Your task to perform on an android device: Look up the best rated Nike shoes on Nike.com Image 0: 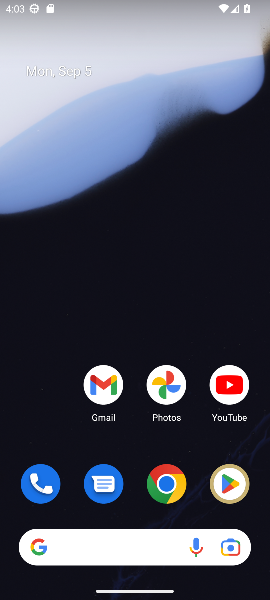
Step 0: click (169, 490)
Your task to perform on an android device: Look up the best rated Nike shoes on Nike.com Image 1: 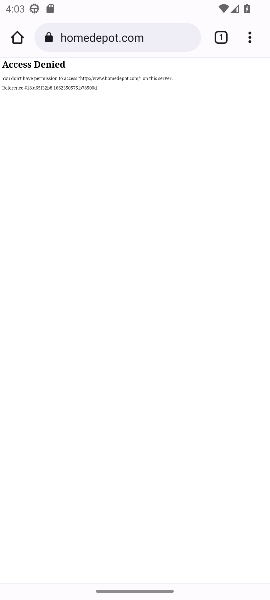
Step 1: click (146, 39)
Your task to perform on an android device: Look up the best rated Nike shoes on Nike.com Image 2: 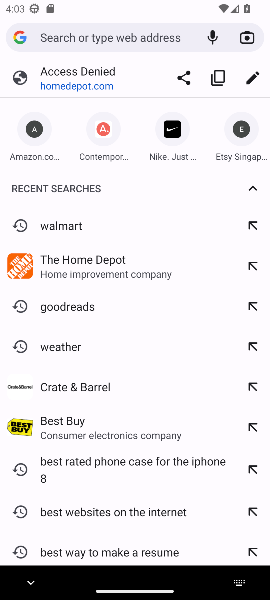
Step 2: type "Nike.com"
Your task to perform on an android device: Look up the best rated Nike shoes on Nike.com Image 3: 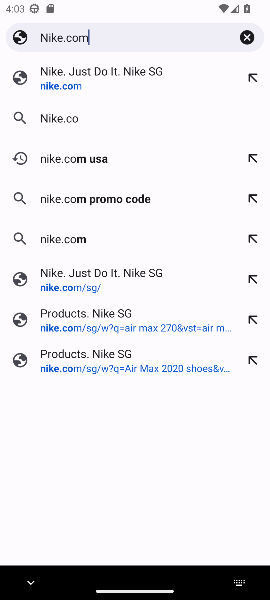
Step 3: press enter
Your task to perform on an android device: Look up the best rated Nike shoes on Nike.com Image 4: 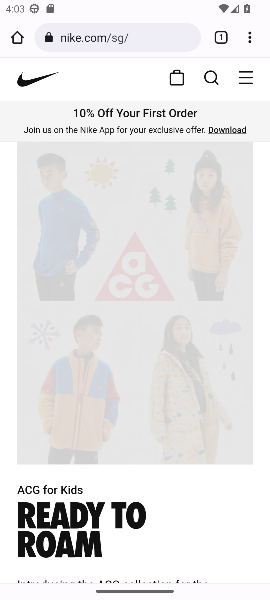
Step 4: click (196, 69)
Your task to perform on an android device: Look up the best rated Nike shoes on Nike.com Image 5: 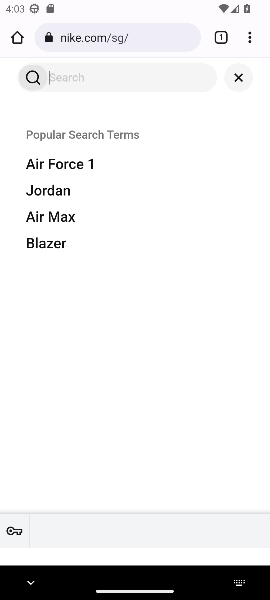
Step 5: click (132, 79)
Your task to perform on an android device: Look up the best rated Nike shoes on Nike.com Image 6: 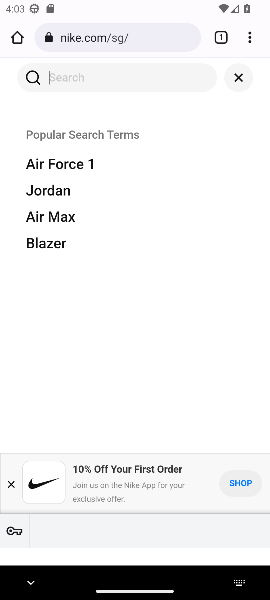
Step 6: press enter
Your task to perform on an android device: Look up the best rated Nike shoes on Nike.com Image 7: 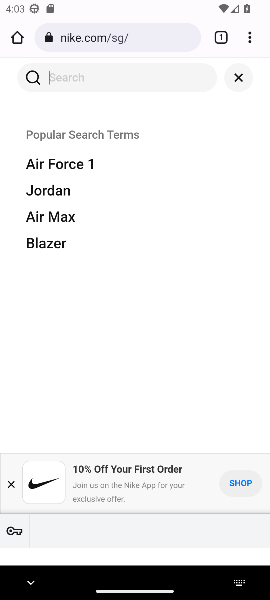
Step 7: type "Nike shoes"
Your task to perform on an android device: Look up the best rated Nike shoes on Nike.com Image 8: 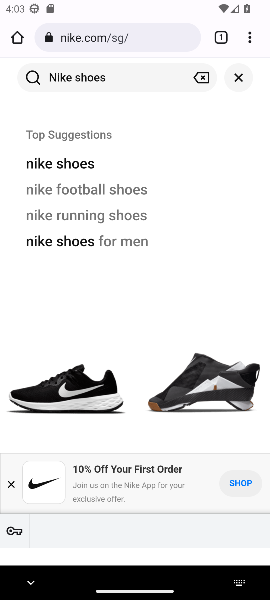
Step 8: drag from (161, 311) to (228, 75)
Your task to perform on an android device: Look up the best rated Nike shoes on Nike.com Image 9: 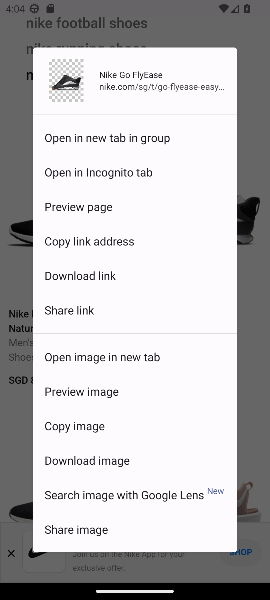
Step 9: click (254, 331)
Your task to perform on an android device: Look up the best rated Nike shoes on Nike.com Image 10: 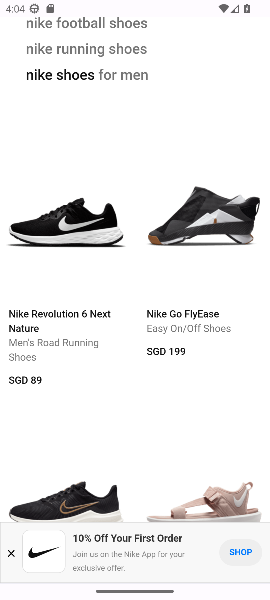
Step 10: task complete